Your task to perform on an android device: Show me popular videos on Youtube Image 0: 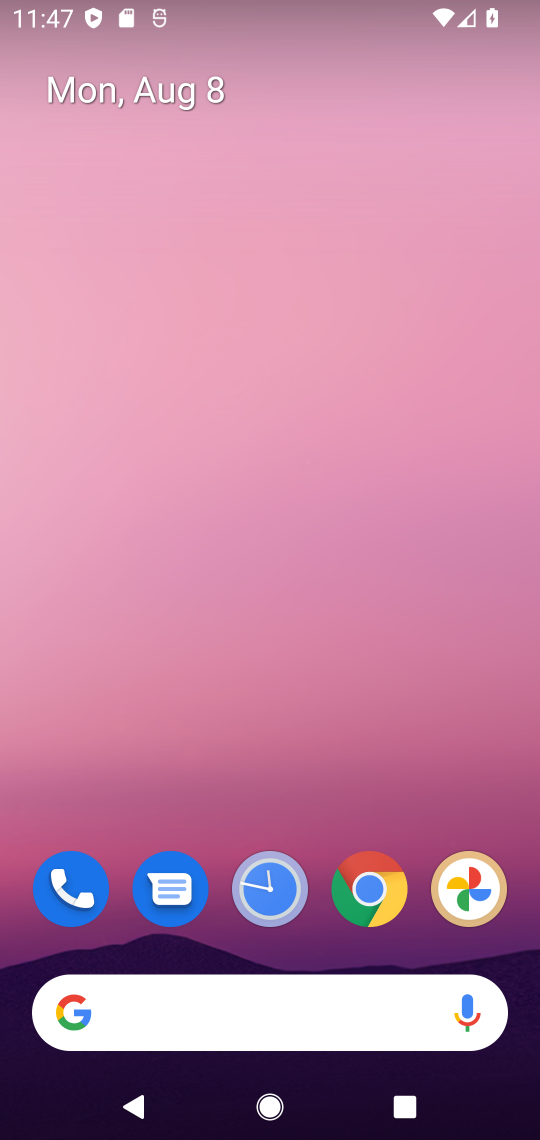
Step 0: drag from (328, 783) to (274, 139)
Your task to perform on an android device: Show me popular videos on Youtube Image 1: 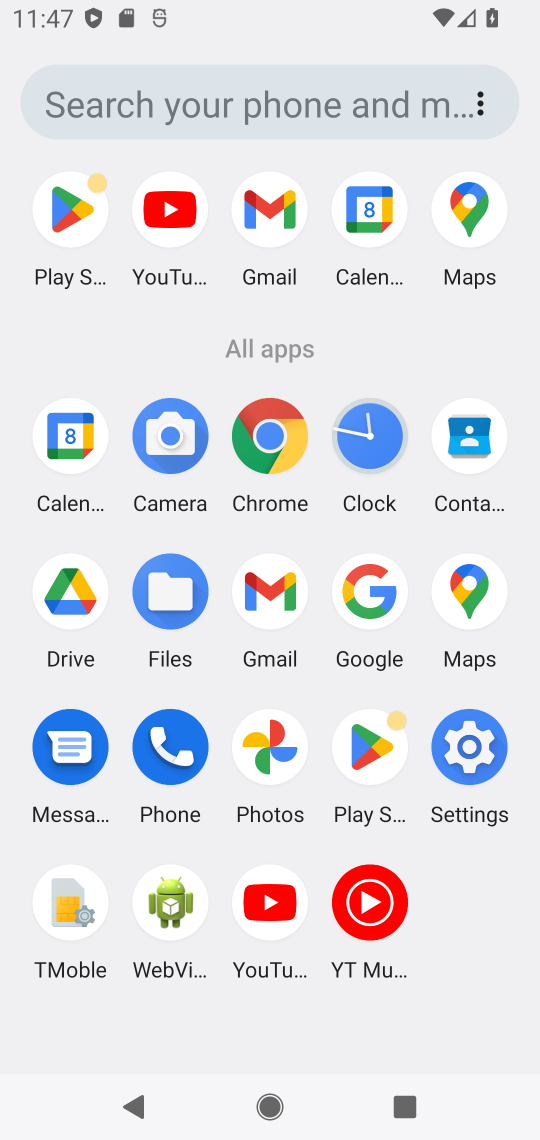
Step 1: click (279, 905)
Your task to perform on an android device: Show me popular videos on Youtube Image 2: 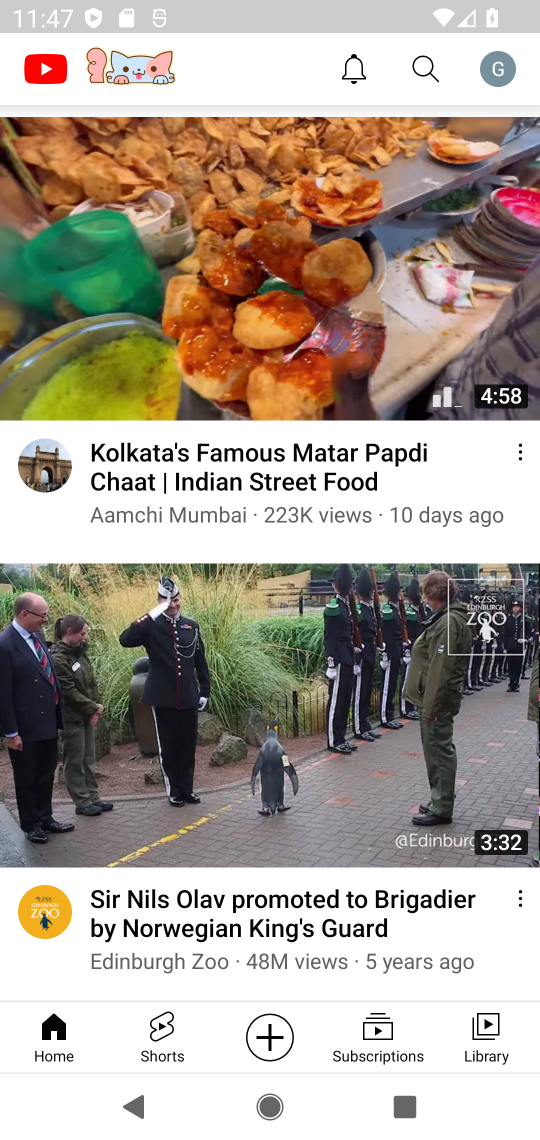
Step 2: click (497, 1036)
Your task to perform on an android device: Show me popular videos on Youtube Image 3: 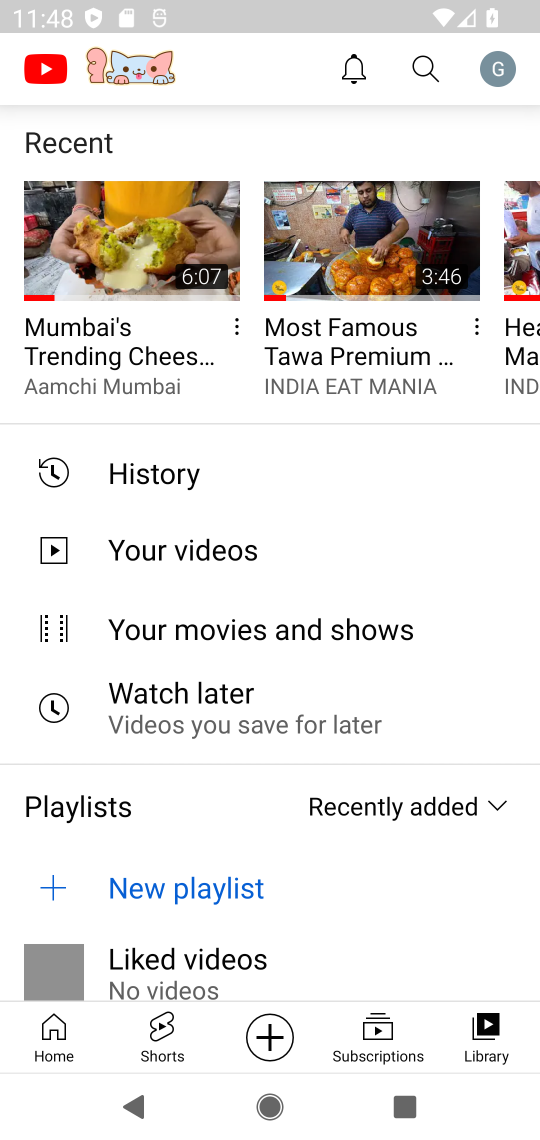
Step 3: click (49, 1038)
Your task to perform on an android device: Show me popular videos on Youtube Image 4: 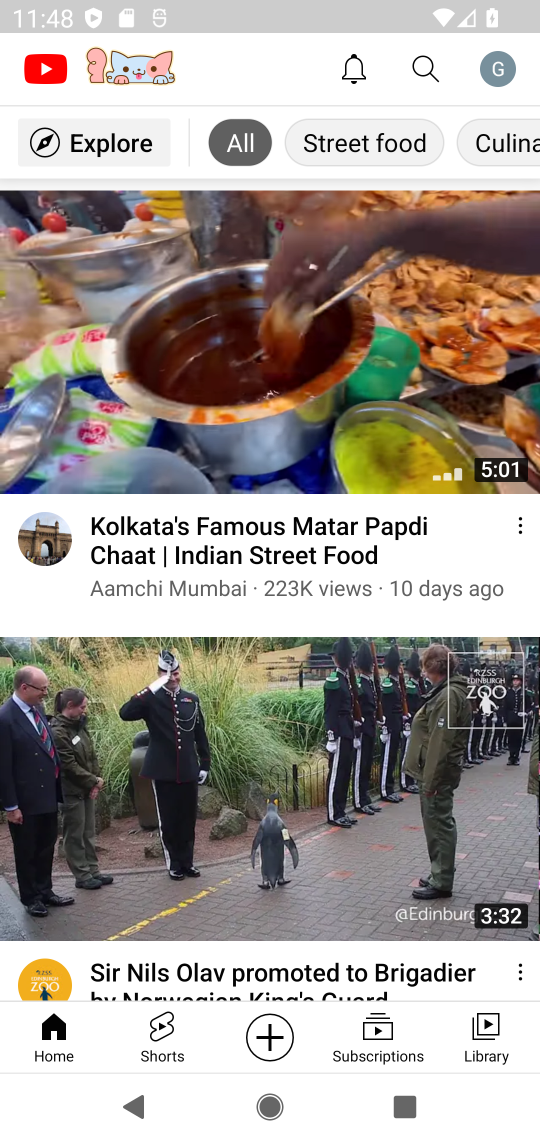
Step 4: click (132, 149)
Your task to perform on an android device: Show me popular videos on Youtube Image 5: 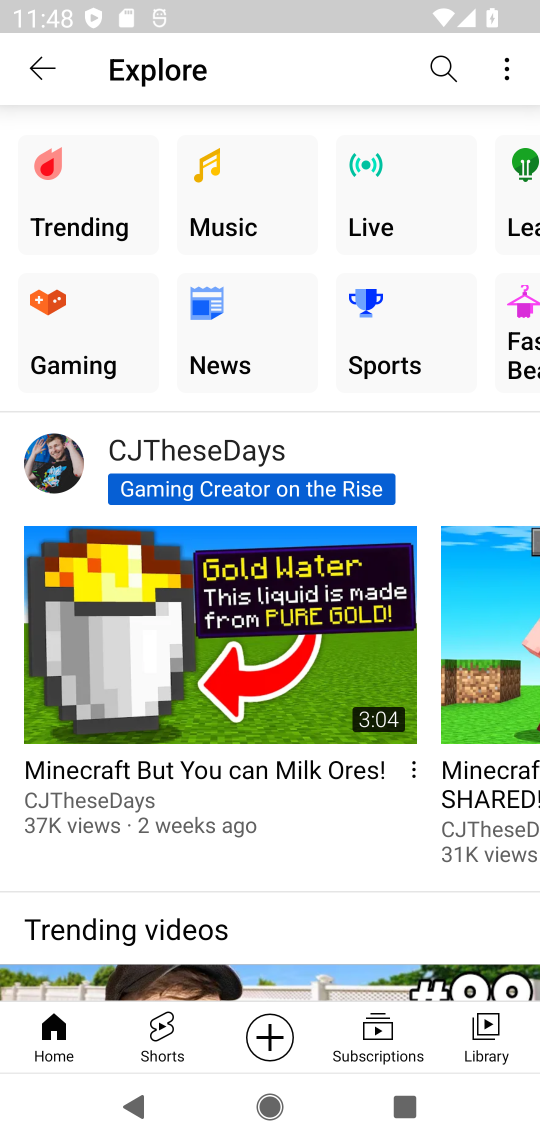
Step 5: click (103, 191)
Your task to perform on an android device: Show me popular videos on Youtube Image 6: 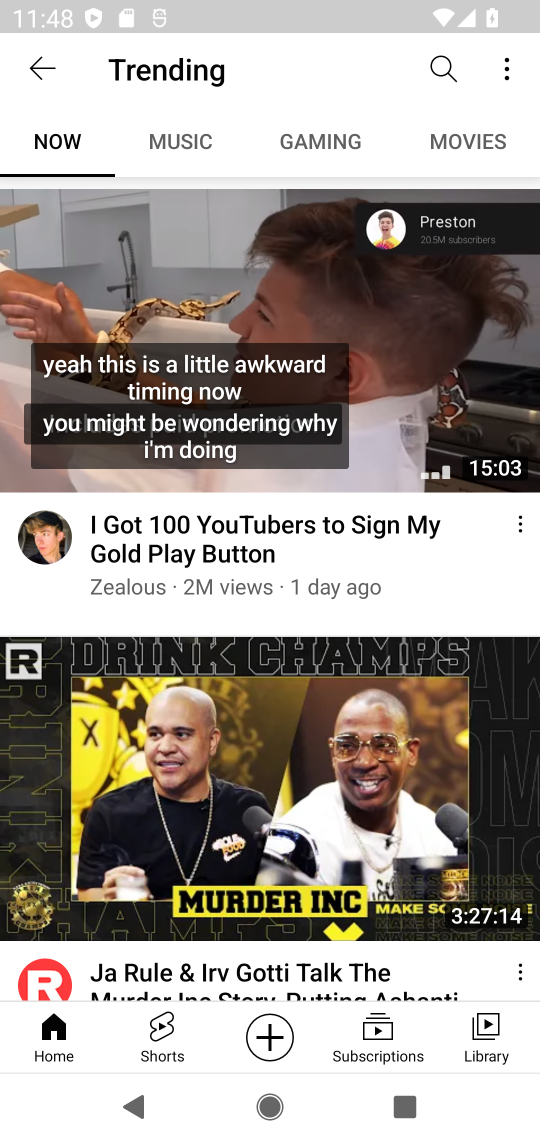
Step 6: task complete